Your task to perform on an android device: all mails in gmail Image 0: 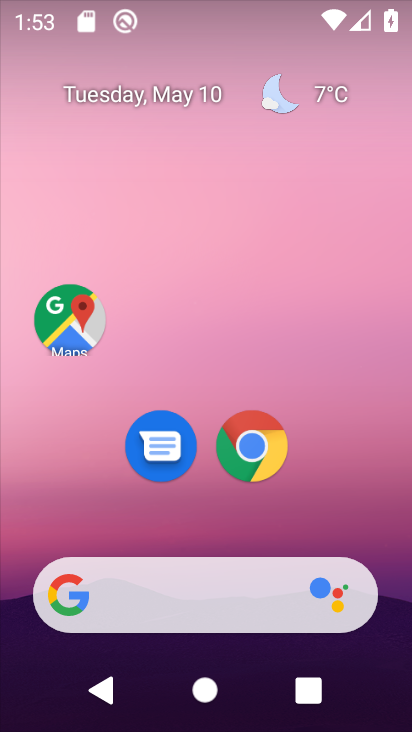
Step 0: click (273, 262)
Your task to perform on an android device: all mails in gmail Image 1: 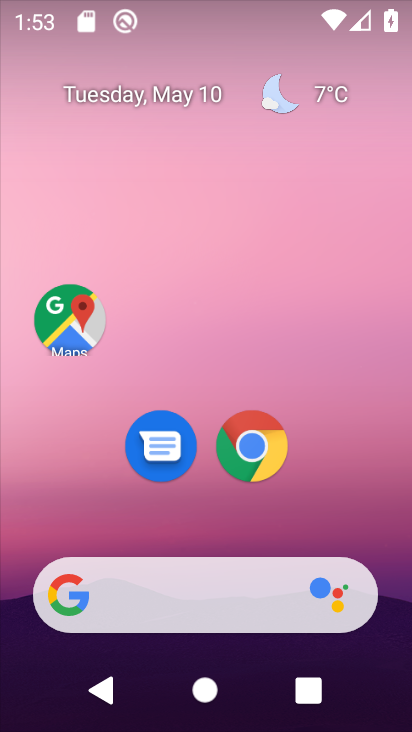
Step 1: drag from (324, 513) to (323, 167)
Your task to perform on an android device: all mails in gmail Image 2: 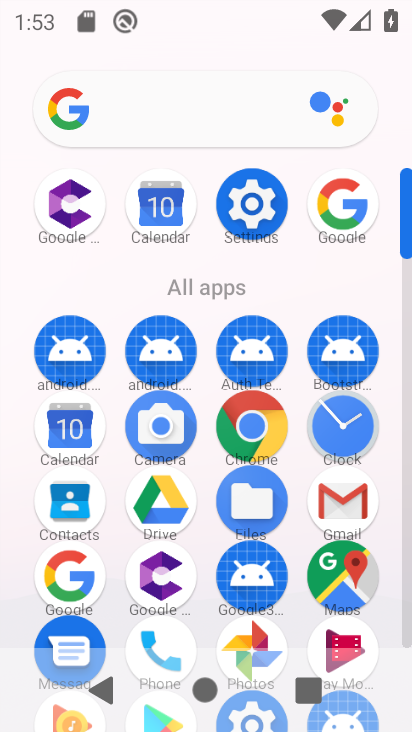
Step 2: click (334, 503)
Your task to perform on an android device: all mails in gmail Image 3: 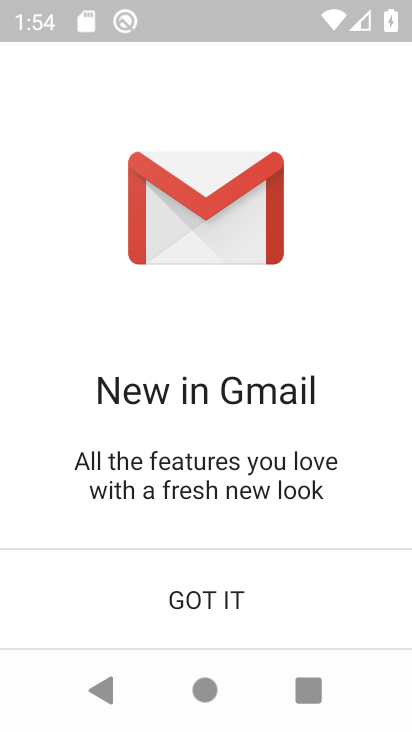
Step 3: click (206, 602)
Your task to perform on an android device: all mails in gmail Image 4: 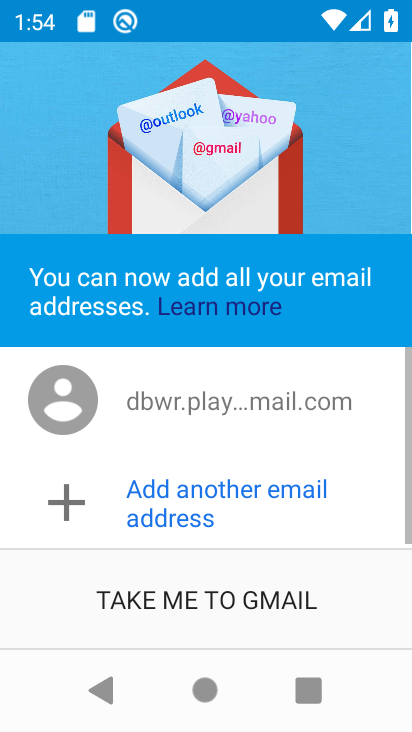
Step 4: click (210, 586)
Your task to perform on an android device: all mails in gmail Image 5: 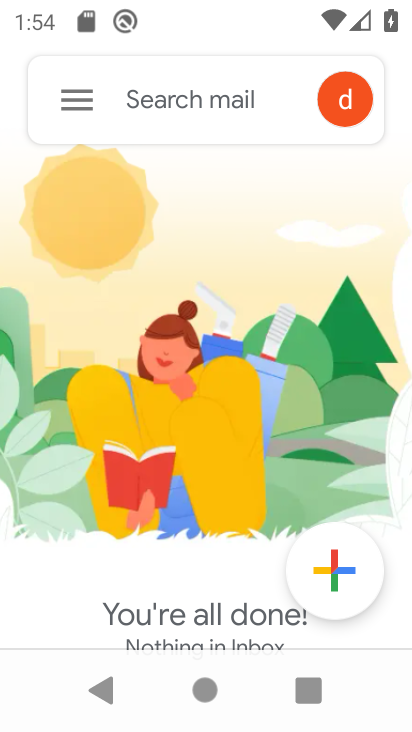
Step 5: click (87, 111)
Your task to perform on an android device: all mails in gmail Image 6: 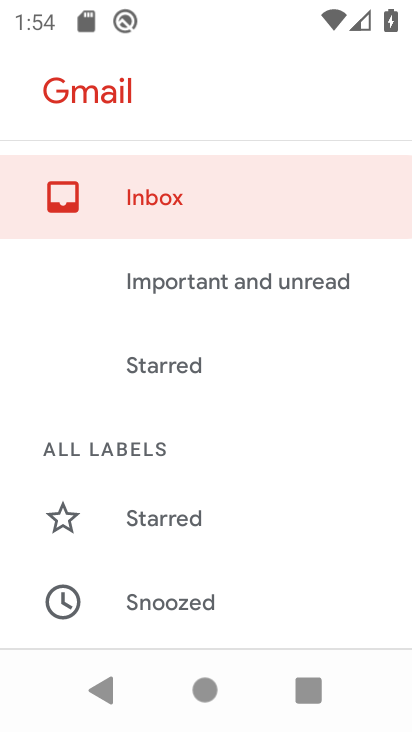
Step 6: drag from (239, 589) to (257, 173)
Your task to perform on an android device: all mails in gmail Image 7: 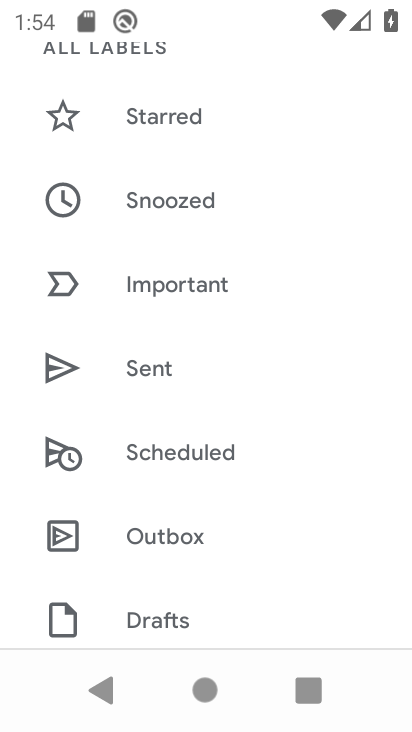
Step 7: drag from (258, 500) to (248, 159)
Your task to perform on an android device: all mails in gmail Image 8: 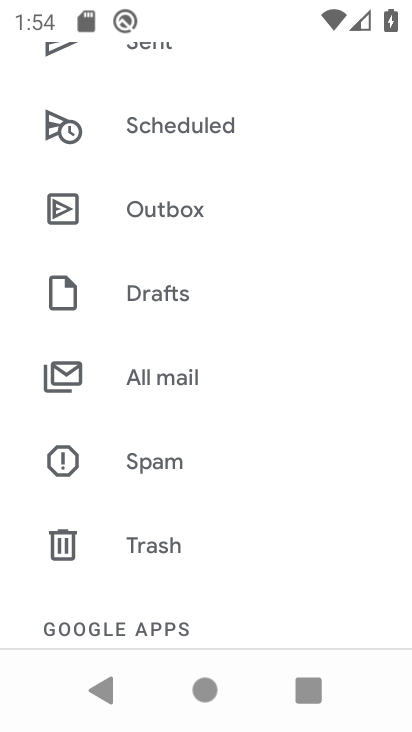
Step 8: click (198, 595)
Your task to perform on an android device: all mails in gmail Image 9: 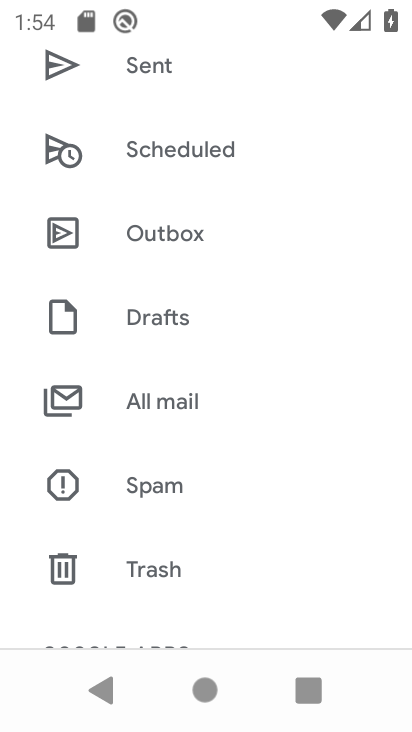
Step 9: click (156, 400)
Your task to perform on an android device: all mails in gmail Image 10: 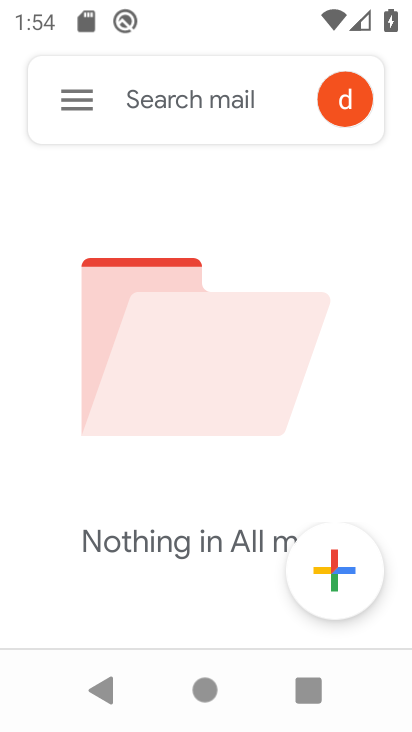
Step 10: task complete